Your task to perform on an android device: star an email in the gmail app Image 0: 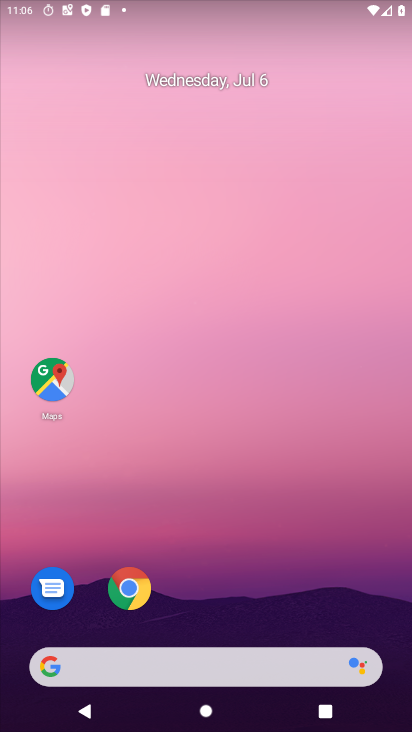
Step 0: drag from (245, 719) to (229, 594)
Your task to perform on an android device: star an email in the gmail app Image 1: 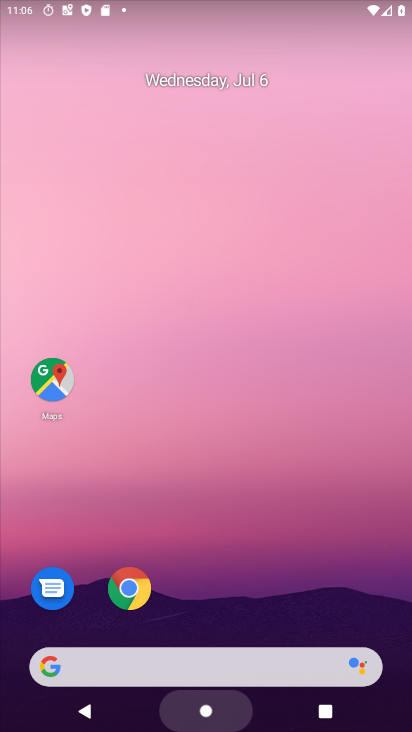
Step 1: drag from (228, 133) to (225, 74)
Your task to perform on an android device: star an email in the gmail app Image 2: 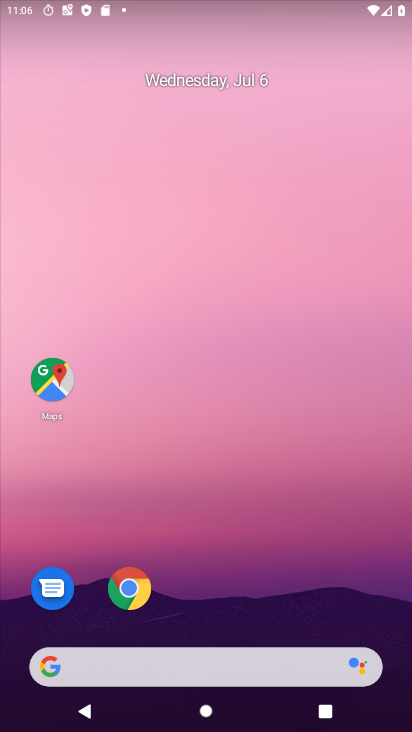
Step 2: click (271, 725)
Your task to perform on an android device: star an email in the gmail app Image 3: 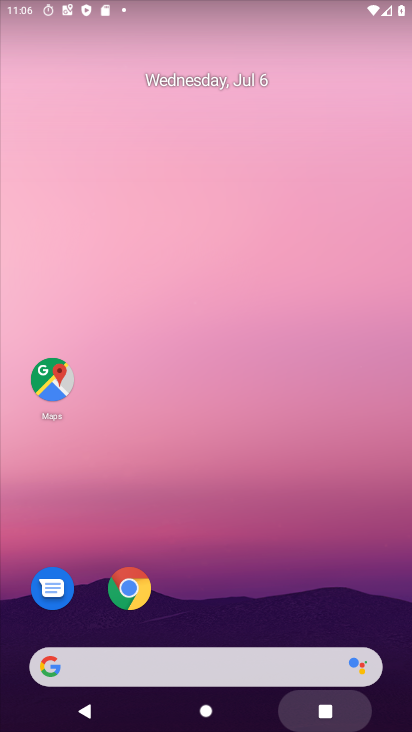
Step 3: drag from (248, 242) to (248, 180)
Your task to perform on an android device: star an email in the gmail app Image 4: 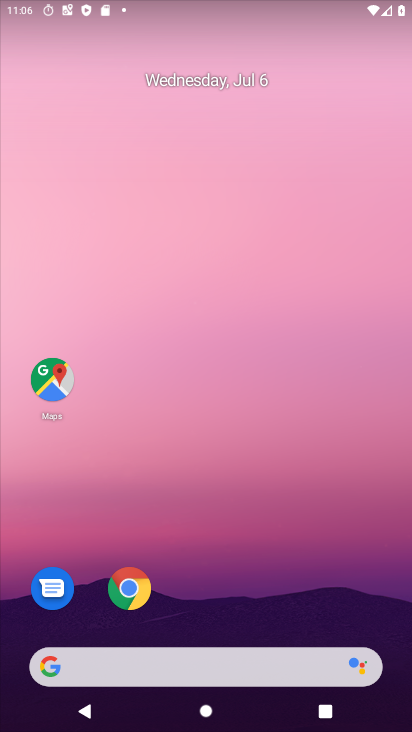
Step 4: drag from (255, 724) to (255, 666)
Your task to perform on an android device: star an email in the gmail app Image 5: 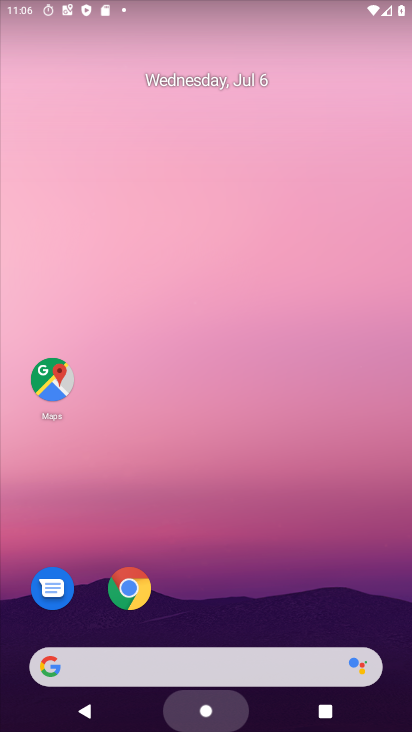
Step 5: drag from (255, 403) to (258, 56)
Your task to perform on an android device: star an email in the gmail app Image 6: 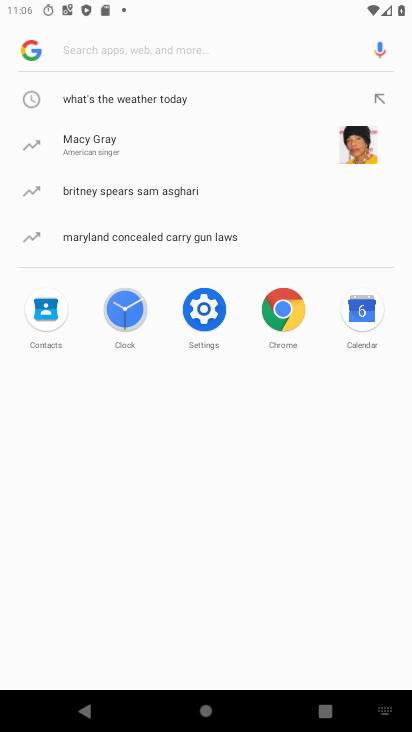
Step 6: press home button
Your task to perform on an android device: star an email in the gmail app Image 7: 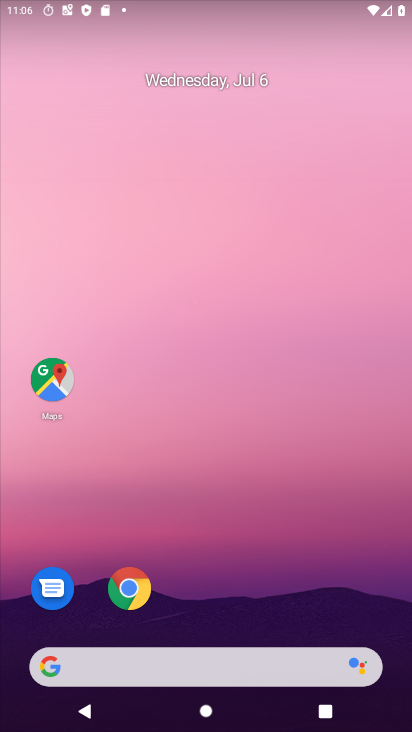
Step 7: drag from (252, 689) to (256, 80)
Your task to perform on an android device: star an email in the gmail app Image 8: 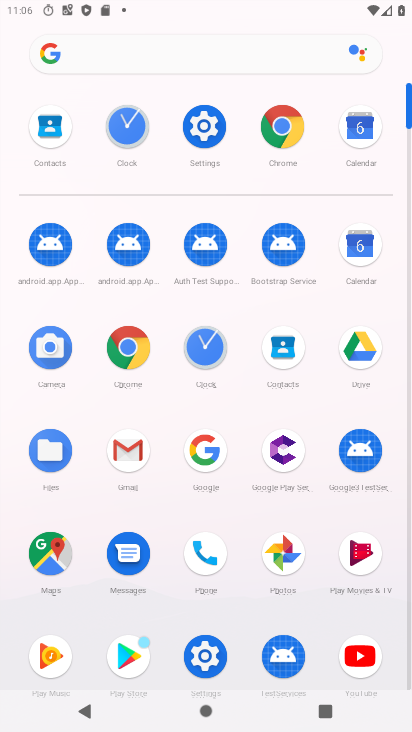
Step 8: click (127, 444)
Your task to perform on an android device: star an email in the gmail app Image 9: 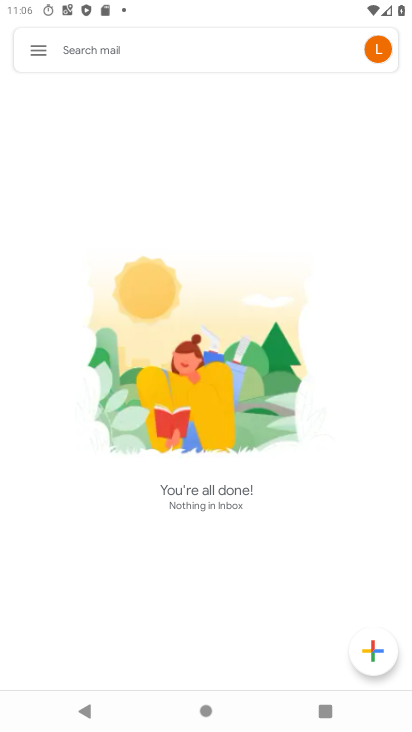
Step 9: task complete